Your task to perform on an android device: turn on the 24-hour format for clock Image 0: 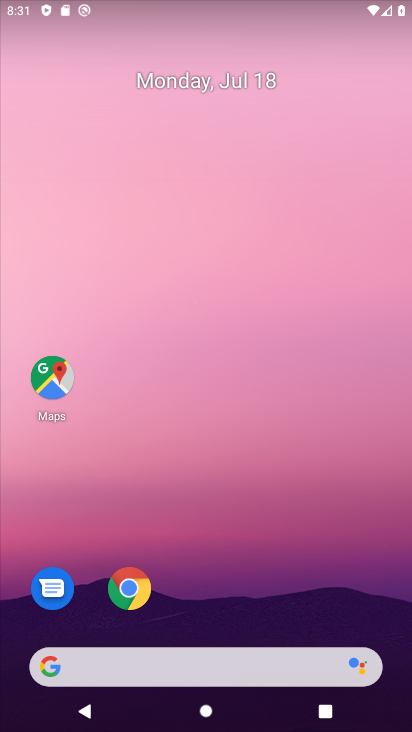
Step 0: press home button
Your task to perform on an android device: turn on the 24-hour format for clock Image 1: 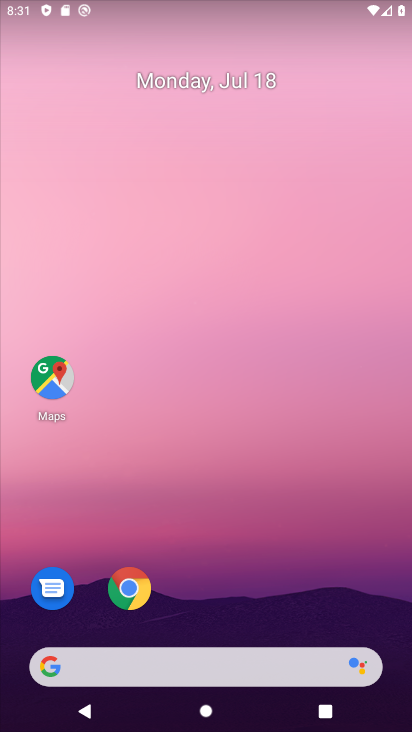
Step 1: drag from (156, 660) to (287, 115)
Your task to perform on an android device: turn on the 24-hour format for clock Image 2: 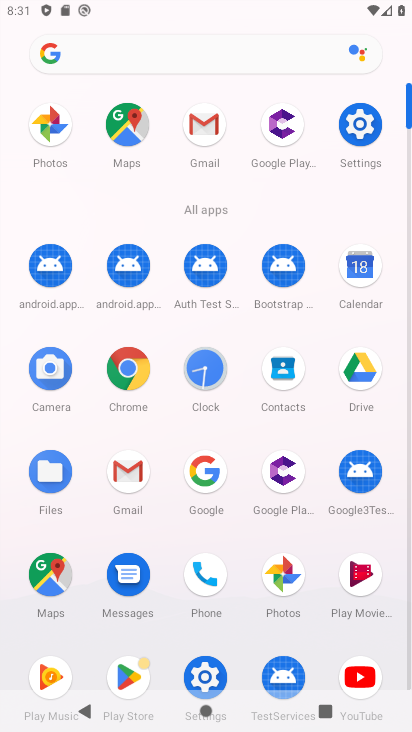
Step 2: click (204, 375)
Your task to perform on an android device: turn on the 24-hour format for clock Image 3: 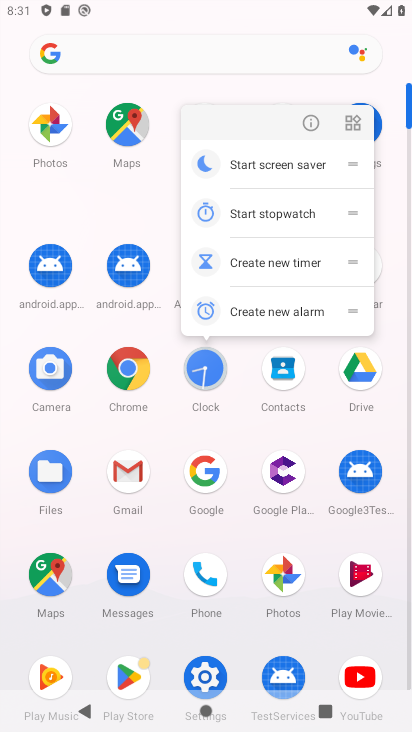
Step 3: click (197, 367)
Your task to perform on an android device: turn on the 24-hour format for clock Image 4: 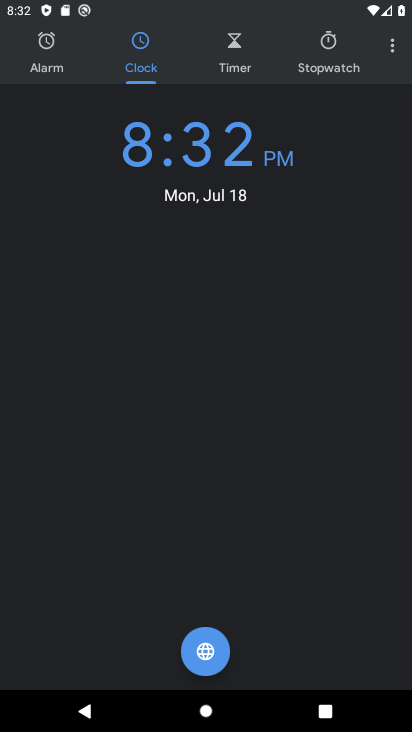
Step 4: click (392, 50)
Your task to perform on an android device: turn on the 24-hour format for clock Image 5: 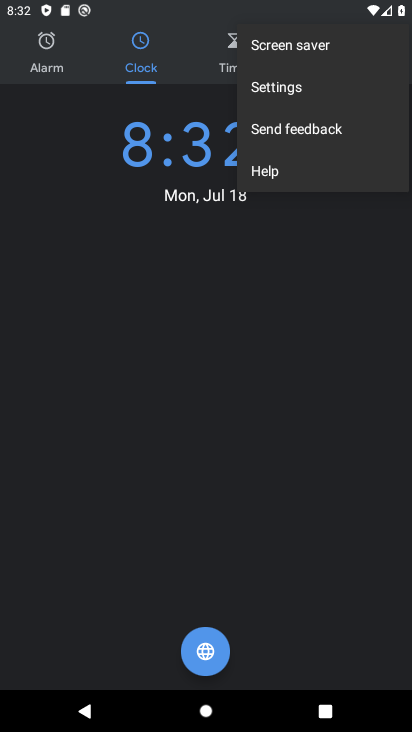
Step 5: click (292, 93)
Your task to perform on an android device: turn on the 24-hour format for clock Image 6: 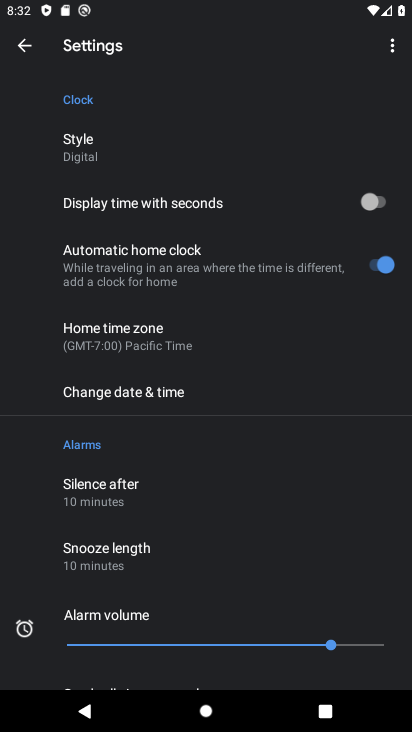
Step 6: click (158, 390)
Your task to perform on an android device: turn on the 24-hour format for clock Image 7: 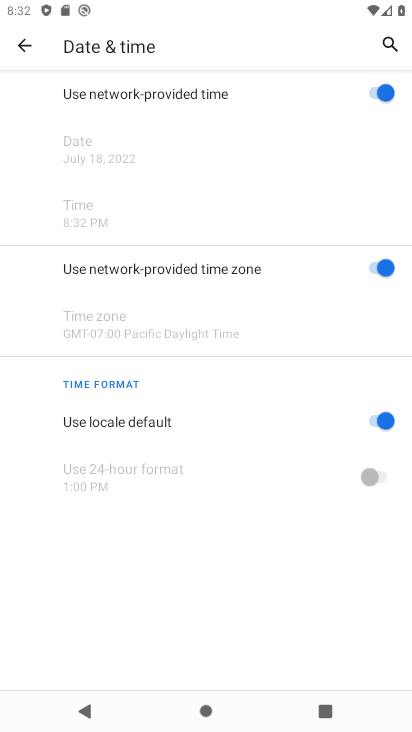
Step 7: click (370, 419)
Your task to perform on an android device: turn on the 24-hour format for clock Image 8: 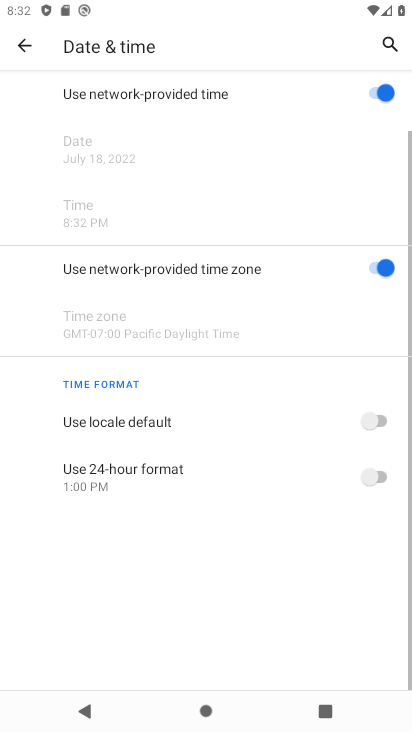
Step 8: click (383, 473)
Your task to perform on an android device: turn on the 24-hour format for clock Image 9: 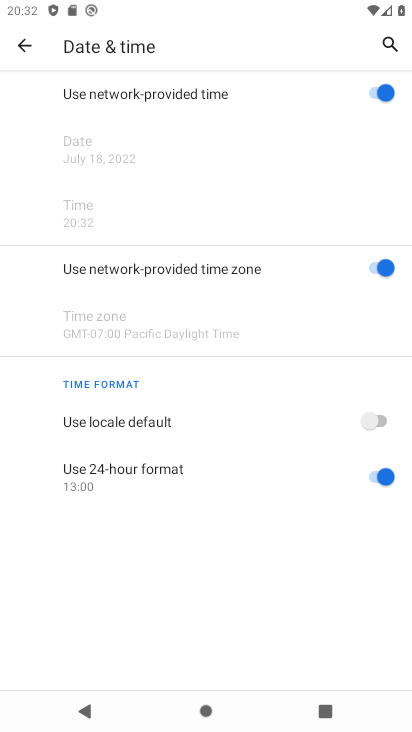
Step 9: task complete